Your task to perform on an android device: change keyboard looks Image 0: 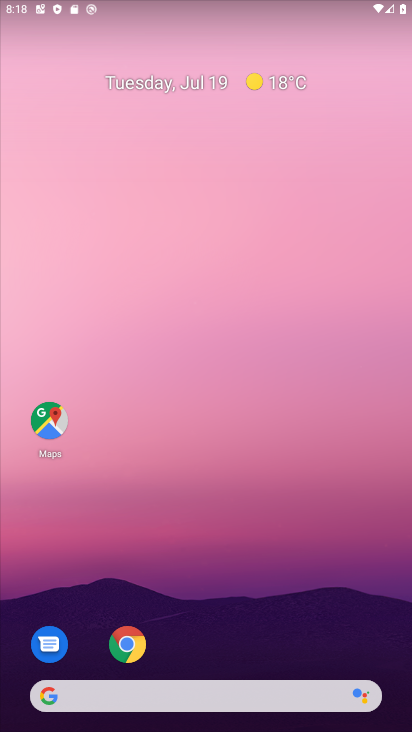
Step 0: drag from (220, 728) to (217, 78)
Your task to perform on an android device: change keyboard looks Image 1: 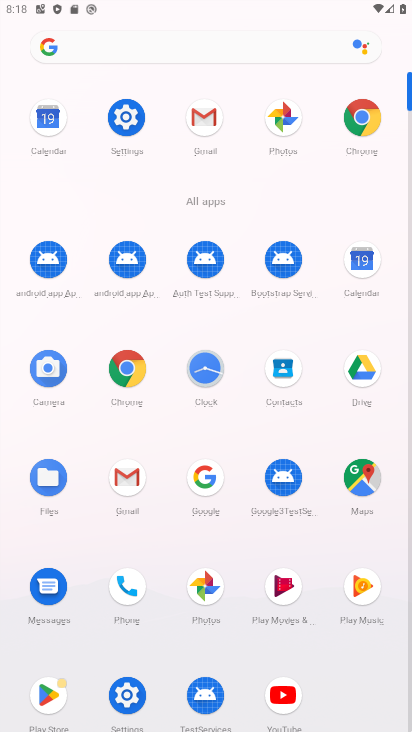
Step 1: click (117, 117)
Your task to perform on an android device: change keyboard looks Image 2: 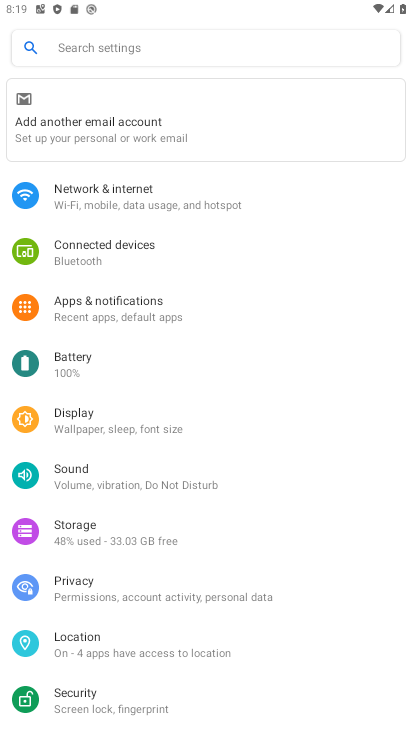
Step 2: drag from (142, 695) to (144, 397)
Your task to perform on an android device: change keyboard looks Image 3: 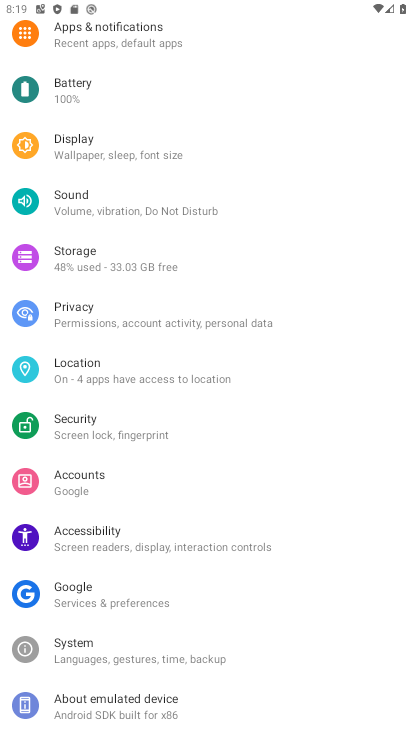
Step 3: click (72, 644)
Your task to perform on an android device: change keyboard looks Image 4: 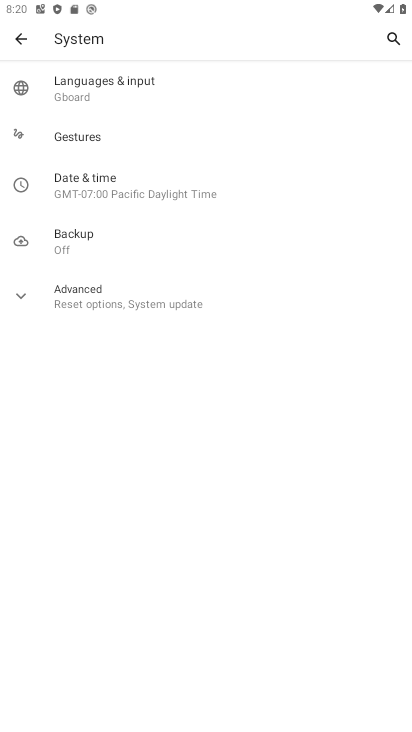
Step 4: click (89, 84)
Your task to perform on an android device: change keyboard looks Image 5: 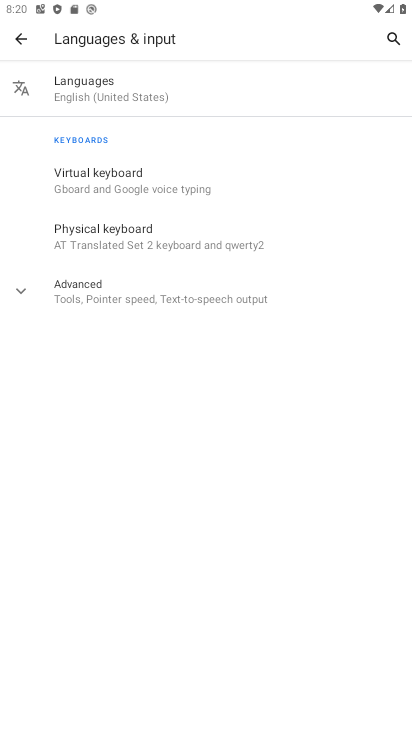
Step 5: click (90, 176)
Your task to perform on an android device: change keyboard looks Image 6: 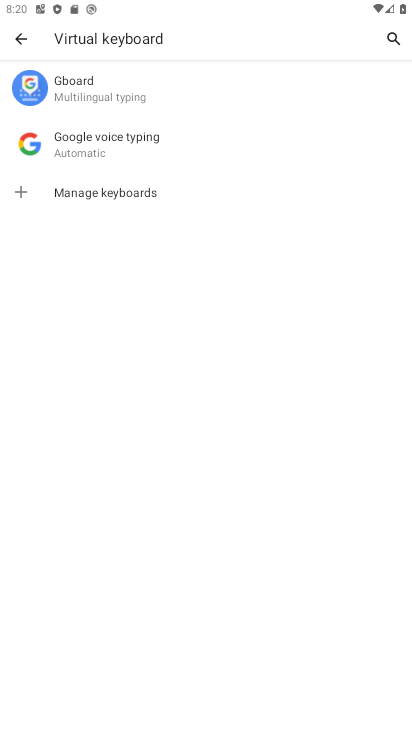
Step 6: click (74, 85)
Your task to perform on an android device: change keyboard looks Image 7: 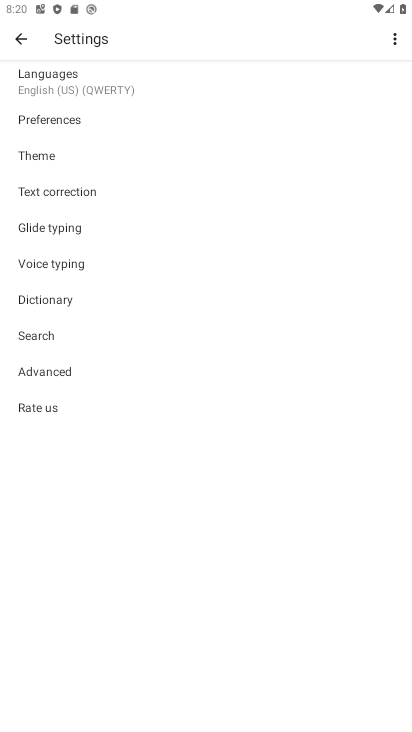
Step 7: click (39, 156)
Your task to perform on an android device: change keyboard looks Image 8: 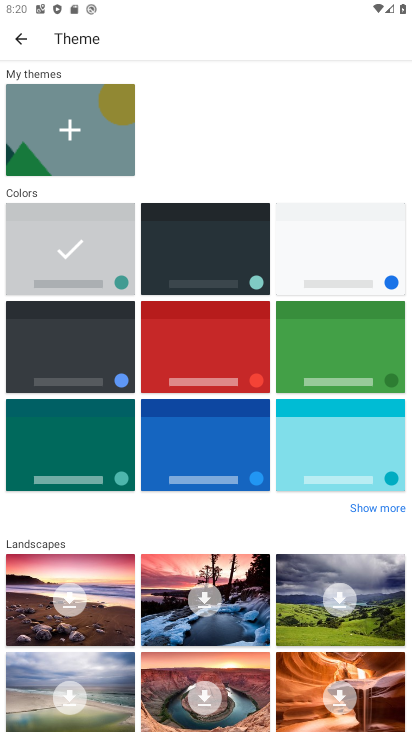
Step 8: click (219, 269)
Your task to perform on an android device: change keyboard looks Image 9: 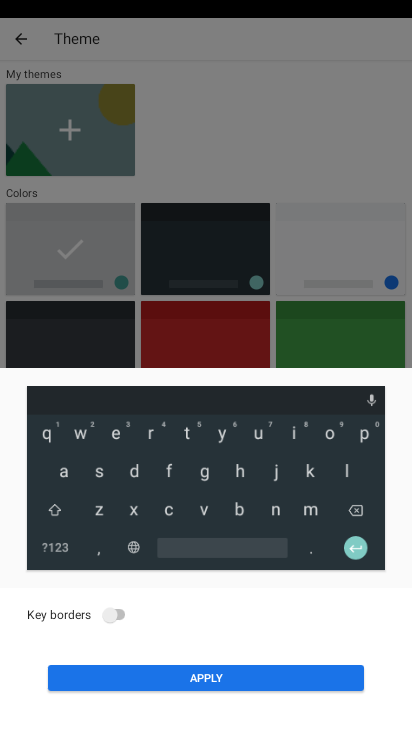
Step 9: click (116, 613)
Your task to perform on an android device: change keyboard looks Image 10: 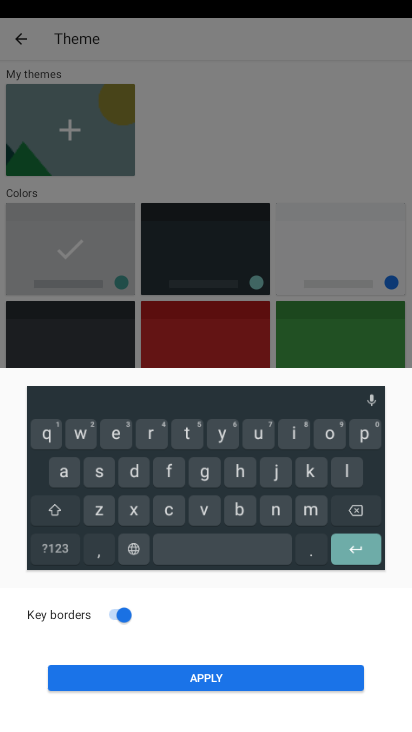
Step 10: click (176, 670)
Your task to perform on an android device: change keyboard looks Image 11: 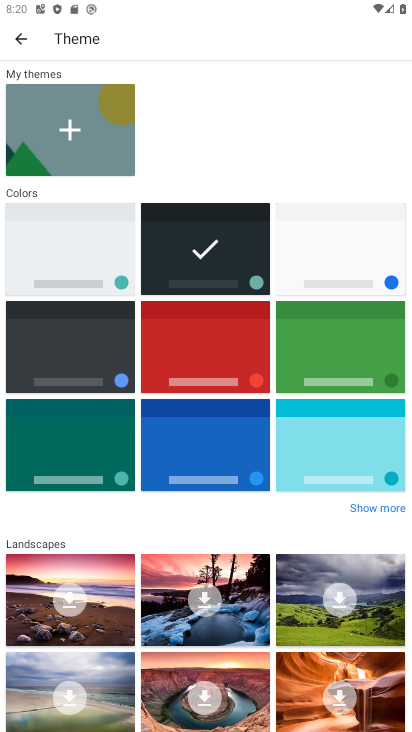
Step 11: task complete